Your task to perform on an android device: change the clock display to analog Image 0: 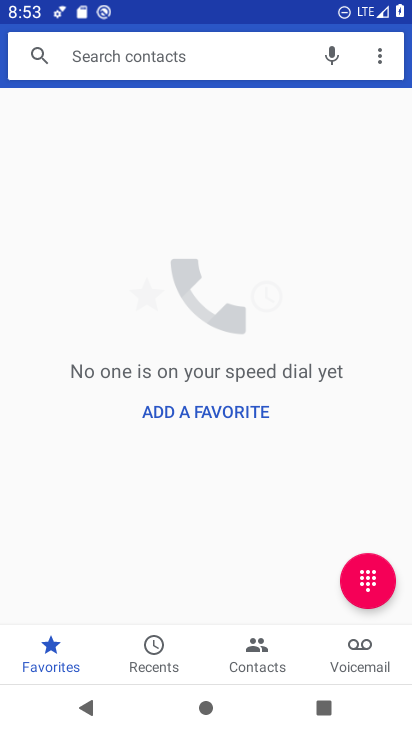
Step 0: press home button
Your task to perform on an android device: change the clock display to analog Image 1: 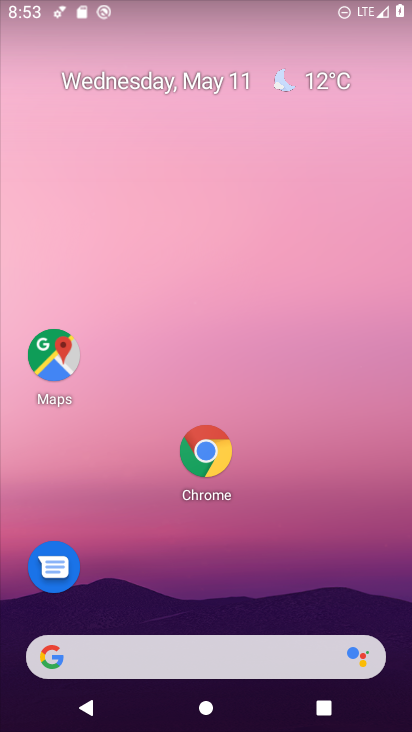
Step 1: drag from (165, 665) to (349, 191)
Your task to perform on an android device: change the clock display to analog Image 2: 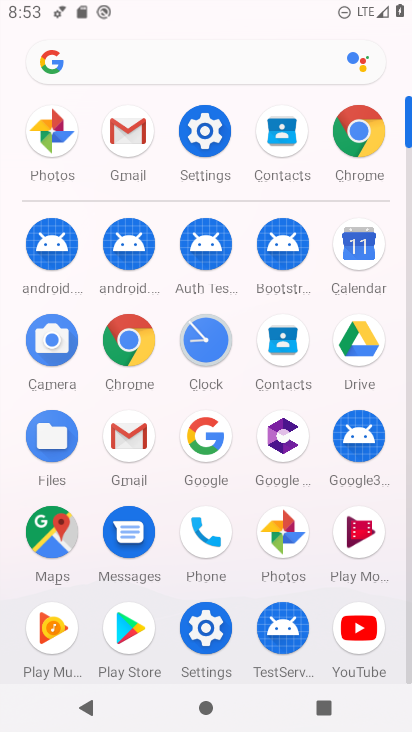
Step 2: click (211, 348)
Your task to perform on an android device: change the clock display to analog Image 3: 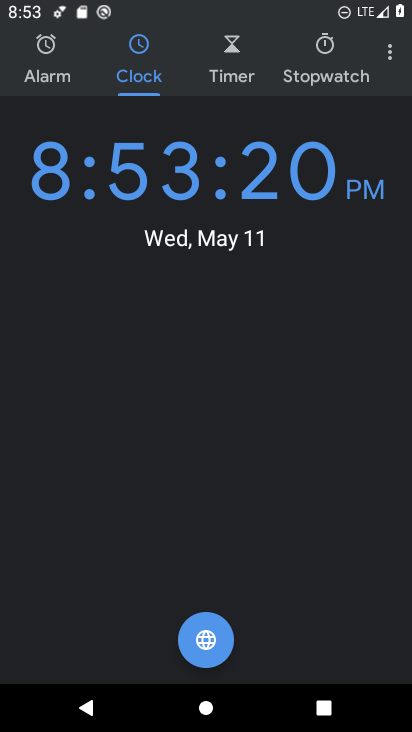
Step 3: click (388, 58)
Your task to perform on an android device: change the clock display to analog Image 4: 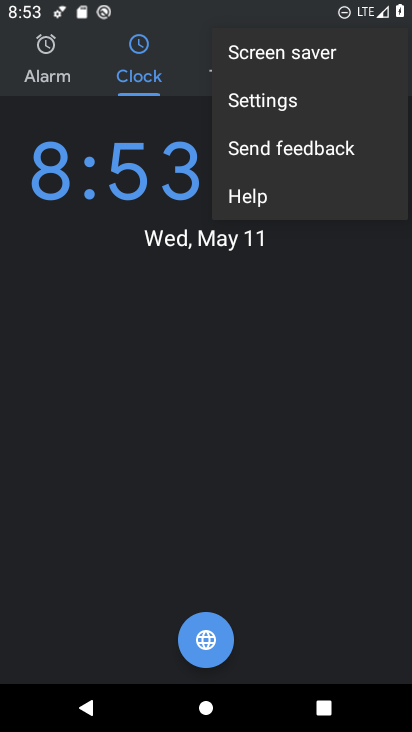
Step 4: click (302, 105)
Your task to perform on an android device: change the clock display to analog Image 5: 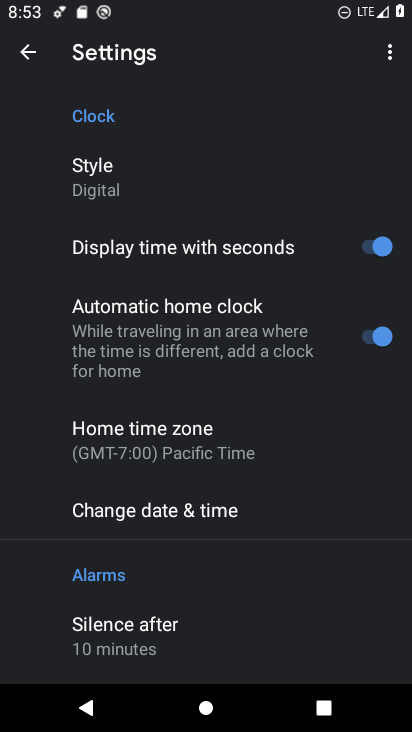
Step 5: click (116, 186)
Your task to perform on an android device: change the clock display to analog Image 6: 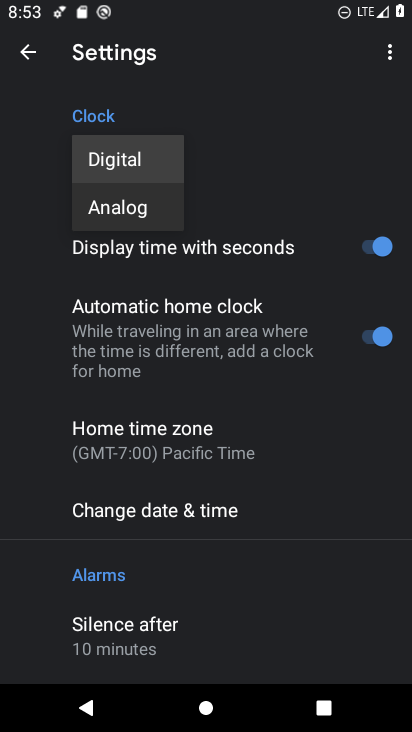
Step 6: click (141, 220)
Your task to perform on an android device: change the clock display to analog Image 7: 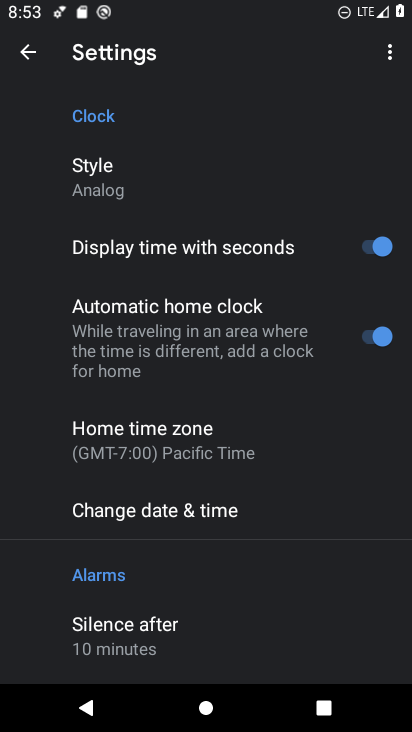
Step 7: task complete